Your task to perform on an android device: turn notification dots on Image 0: 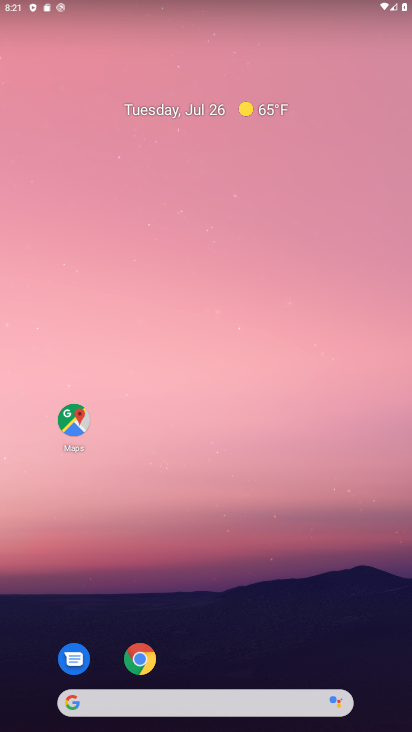
Step 0: drag from (186, 357) to (192, 111)
Your task to perform on an android device: turn notification dots on Image 1: 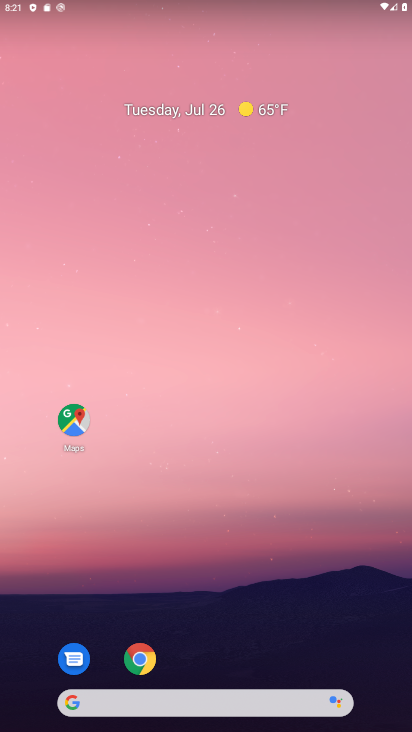
Step 1: drag from (190, 661) to (198, 227)
Your task to perform on an android device: turn notification dots on Image 2: 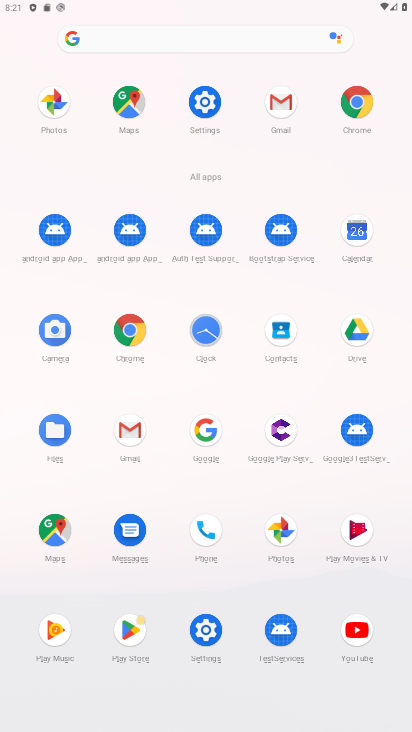
Step 2: click (209, 98)
Your task to perform on an android device: turn notification dots on Image 3: 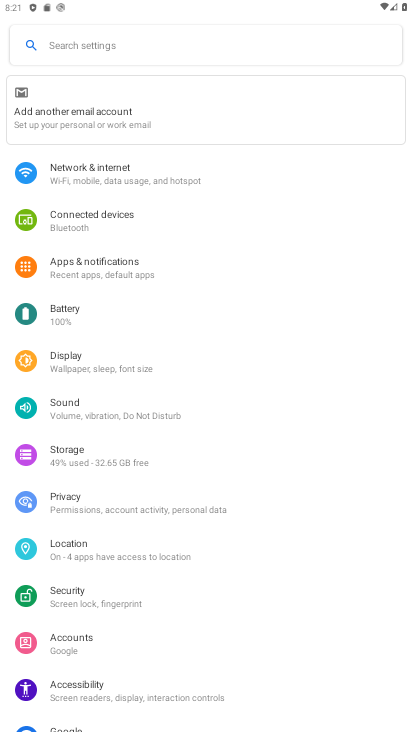
Step 3: click (63, 257)
Your task to perform on an android device: turn notification dots on Image 4: 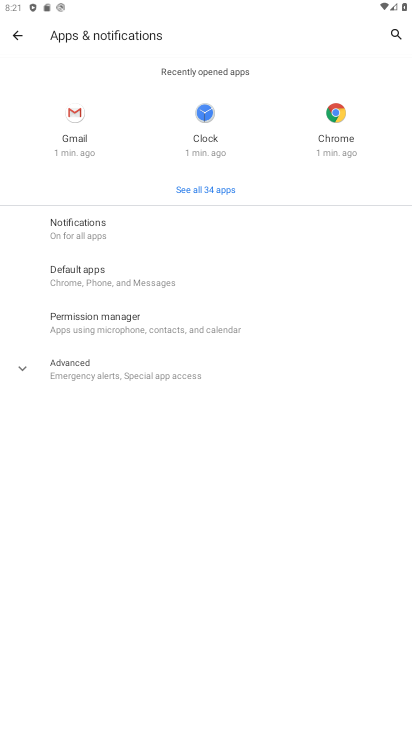
Step 4: click (78, 241)
Your task to perform on an android device: turn notification dots on Image 5: 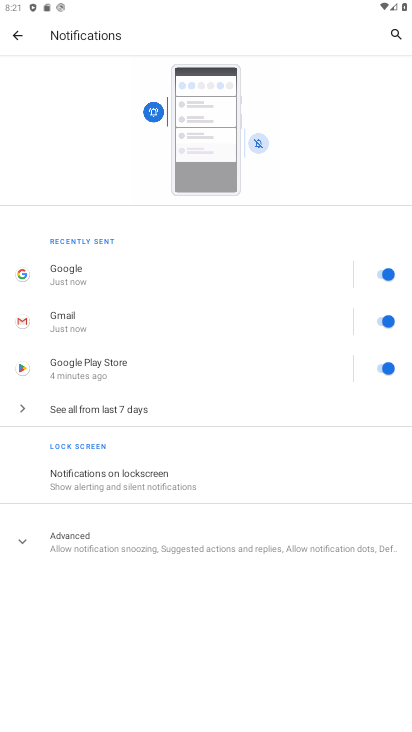
Step 5: click (99, 540)
Your task to perform on an android device: turn notification dots on Image 6: 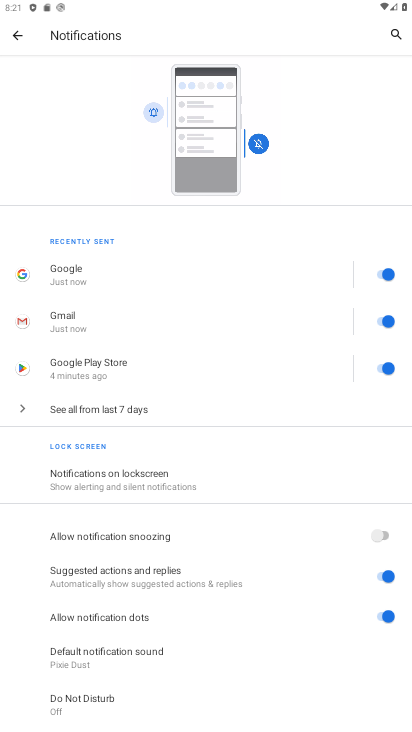
Step 6: task complete